Your task to perform on an android device: Open the calendar and show me this week's events Image 0: 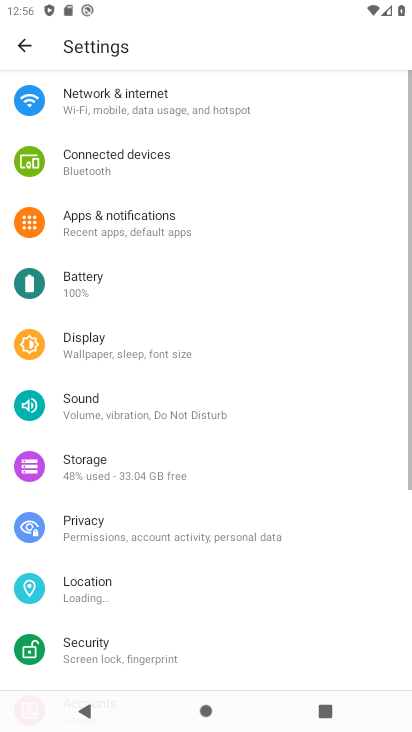
Step 0: press home button
Your task to perform on an android device: Open the calendar and show me this week's events Image 1: 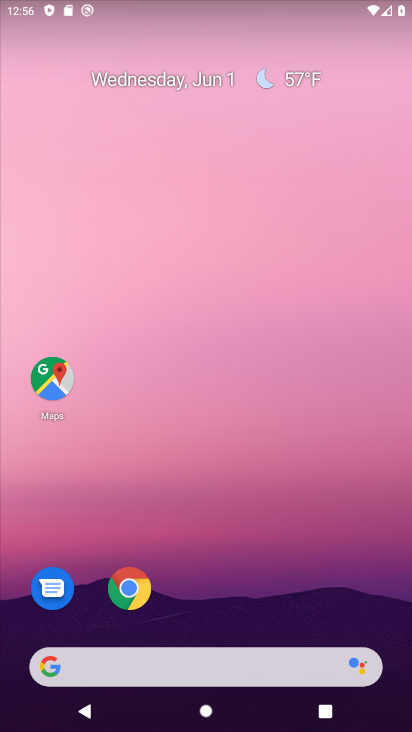
Step 1: drag from (282, 628) to (149, 23)
Your task to perform on an android device: Open the calendar and show me this week's events Image 2: 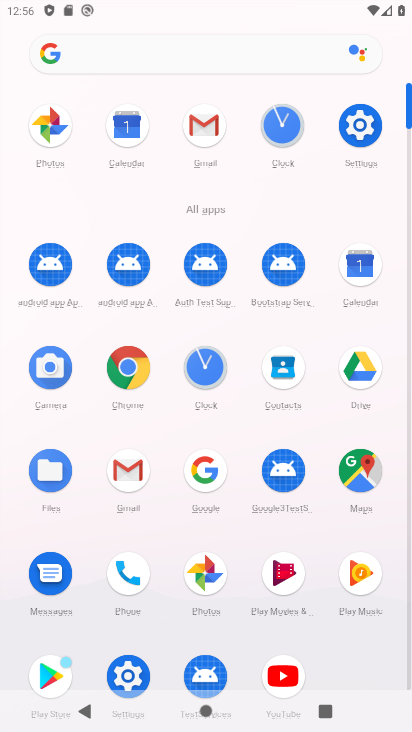
Step 2: click (358, 277)
Your task to perform on an android device: Open the calendar and show me this week's events Image 3: 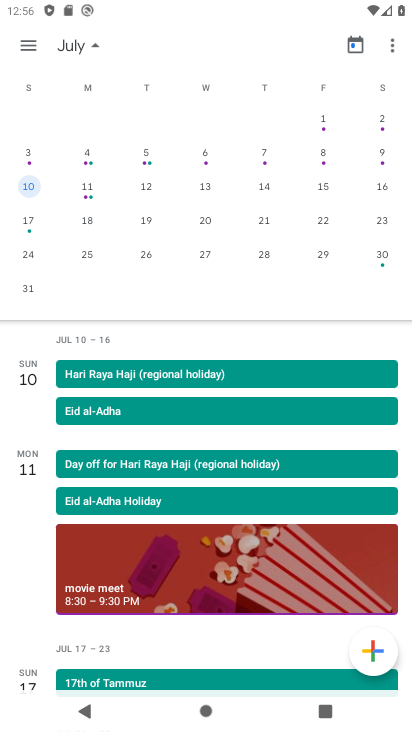
Step 3: drag from (78, 162) to (406, 203)
Your task to perform on an android device: Open the calendar and show me this week's events Image 4: 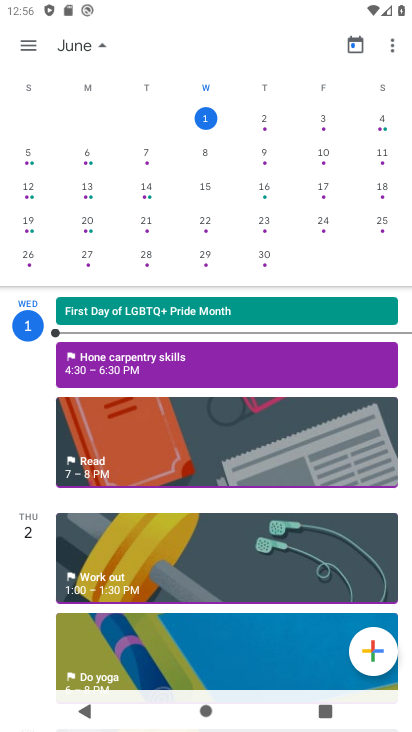
Step 4: drag from (20, 480) to (0, 220)
Your task to perform on an android device: Open the calendar and show me this week's events Image 5: 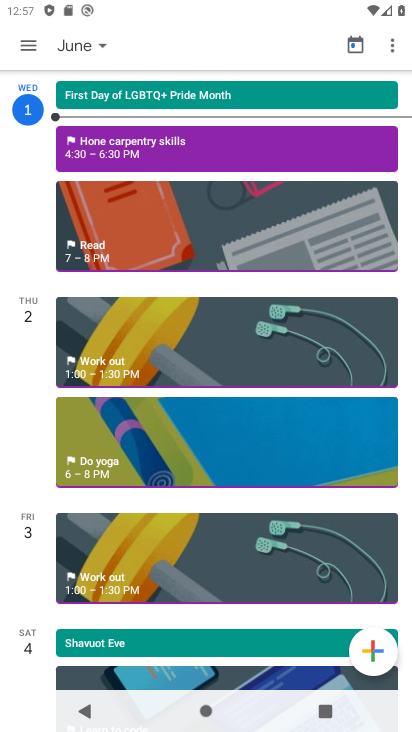
Step 5: click (33, 43)
Your task to perform on an android device: Open the calendar and show me this week's events Image 6: 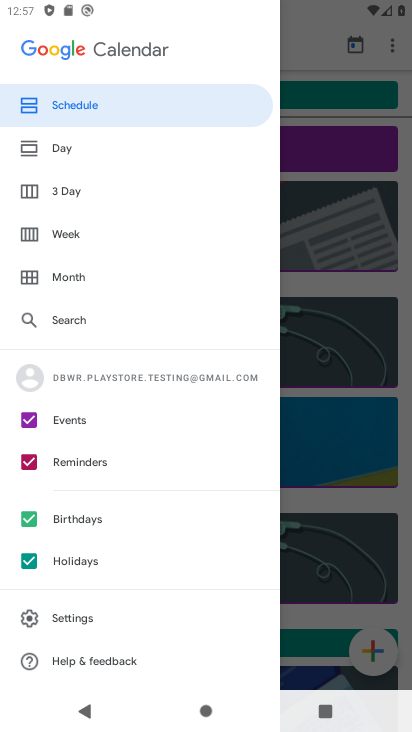
Step 6: click (77, 234)
Your task to perform on an android device: Open the calendar and show me this week's events Image 7: 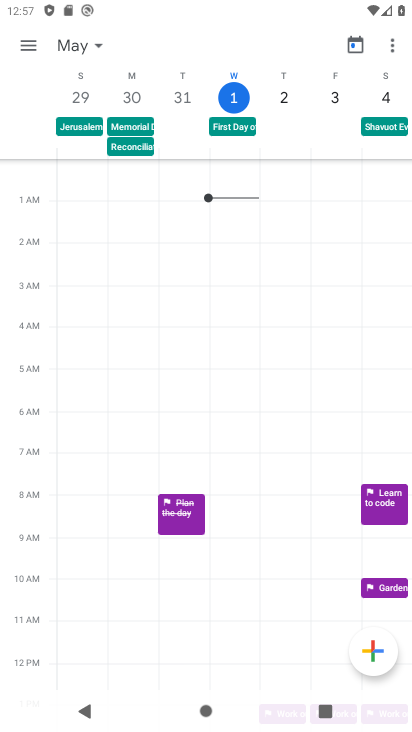
Step 7: task complete